Your task to perform on an android device: Open network settings Image 0: 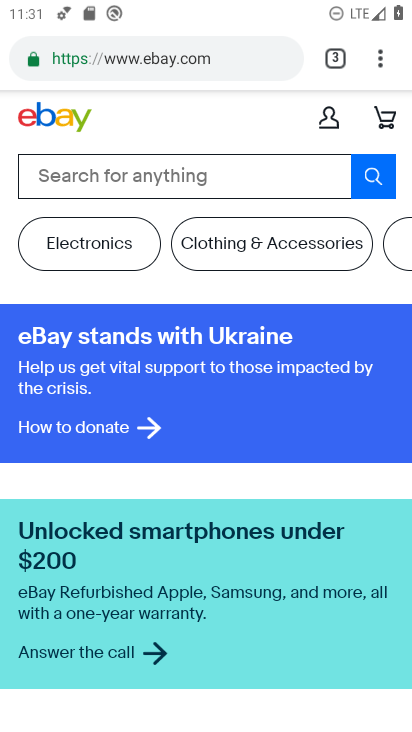
Step 0: press home button
Your task to perform on an android device: Open network settings Image 1: 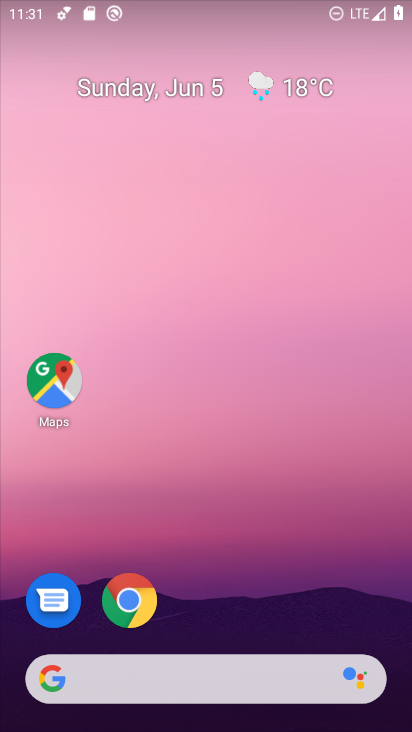
Step 1: drag from (196, 546) to (196, 161)
Your task to perform on an android device: Open network settings Image 2: 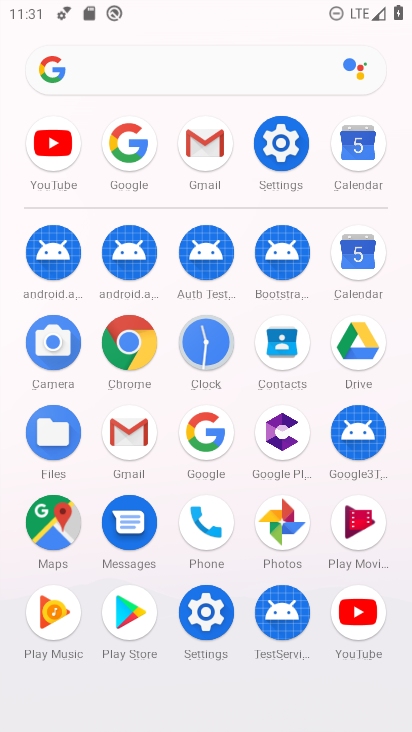
Step 2: click (268, 155)
Your task to perform on an android device: Open network settings Image 3: 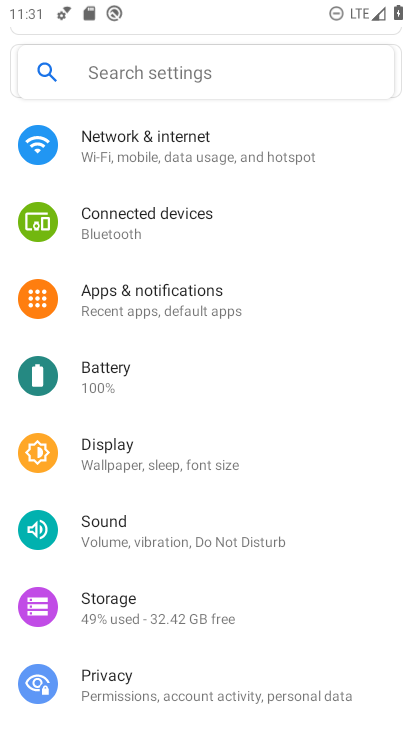
Step 3: click (202, 156)
Your task to perform on an android device: Open network settings Image 4: 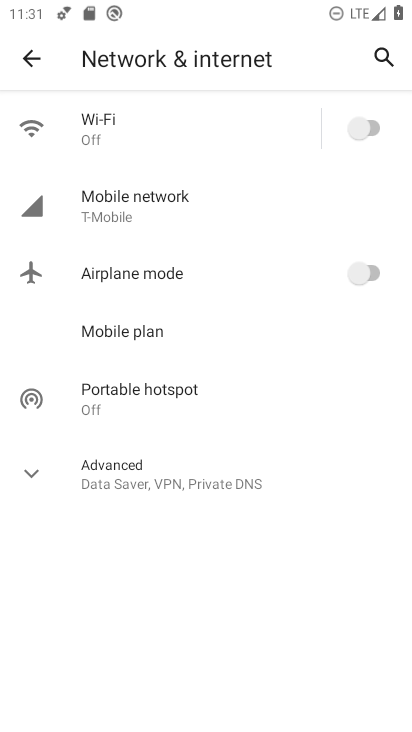
Step 4: click (222, 204)
Your task to perform on an android device: Open network settings Image 5: 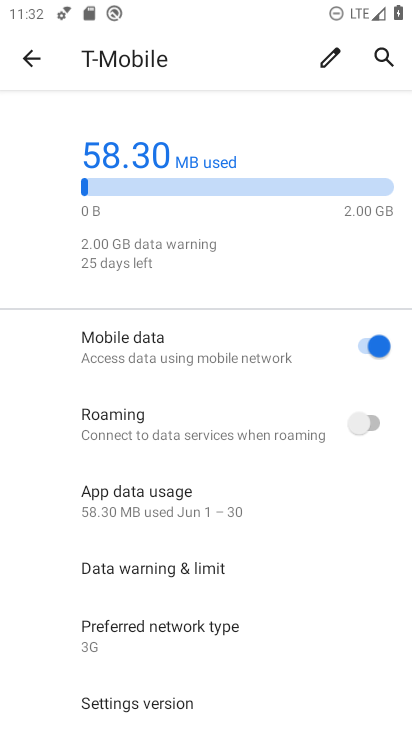
Step 5: task complete